Your task to perform on an android device: View the shopping cart on amazon. Add dell xps to the cart on amazon Image 0: 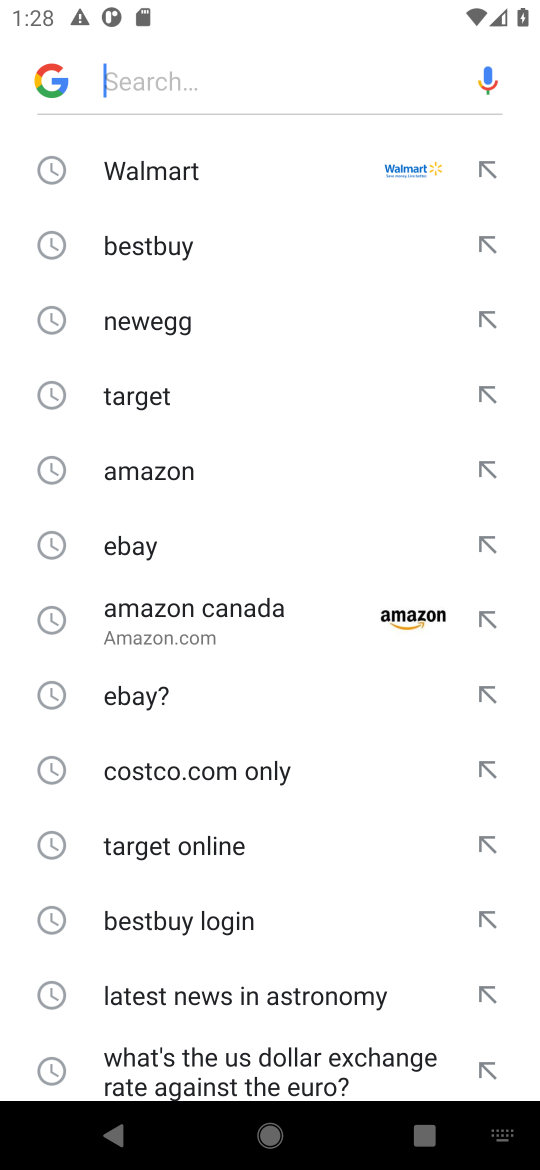
Step 0: press home button
Your task to perform on an android device: View the shopping cart on amazon. Add dell xps to the cart on amazon Image 1: 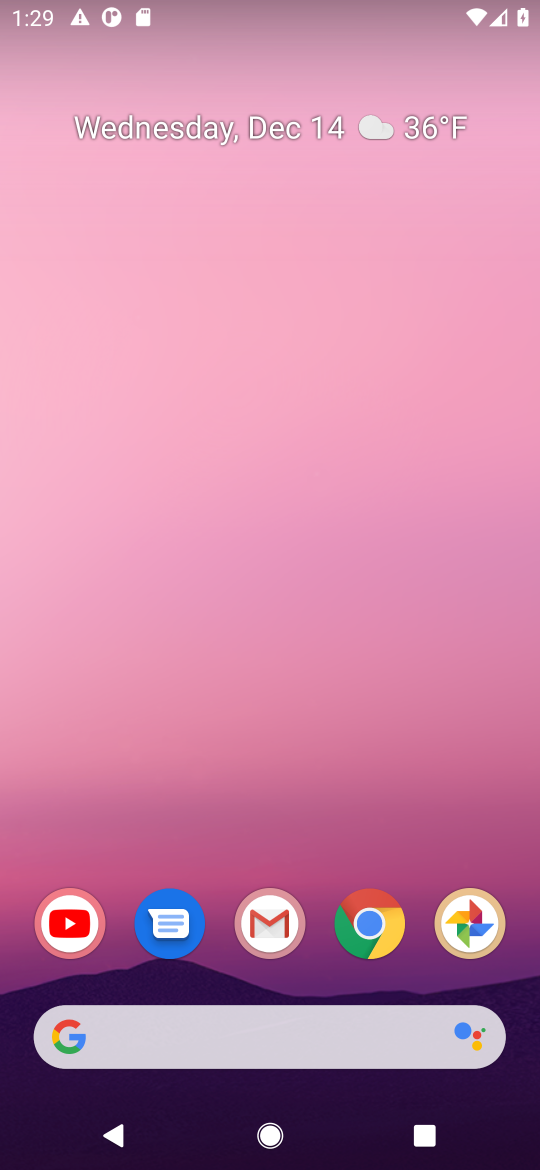
Step 1: click (377, 935)
Your task to perform on an android device: View the shopping cart on amazon. Add dell xps to the cart on amazon Image 2: 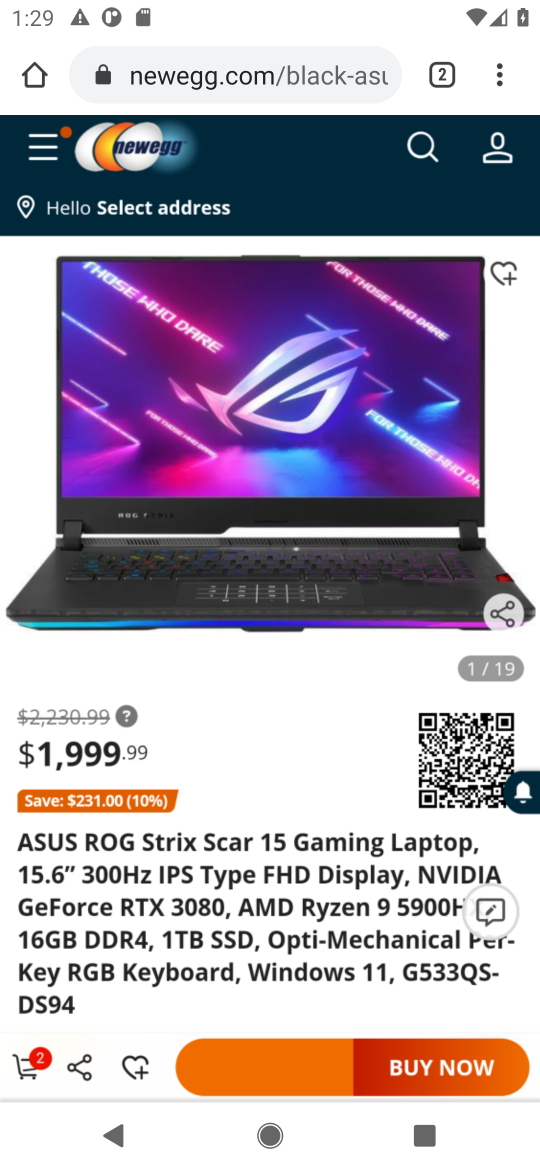
Step 2: click (271, 66)
Your task to perform on an android device: View the shopping cart on amazon. Add dell xps to the cart on amazon Image 3: 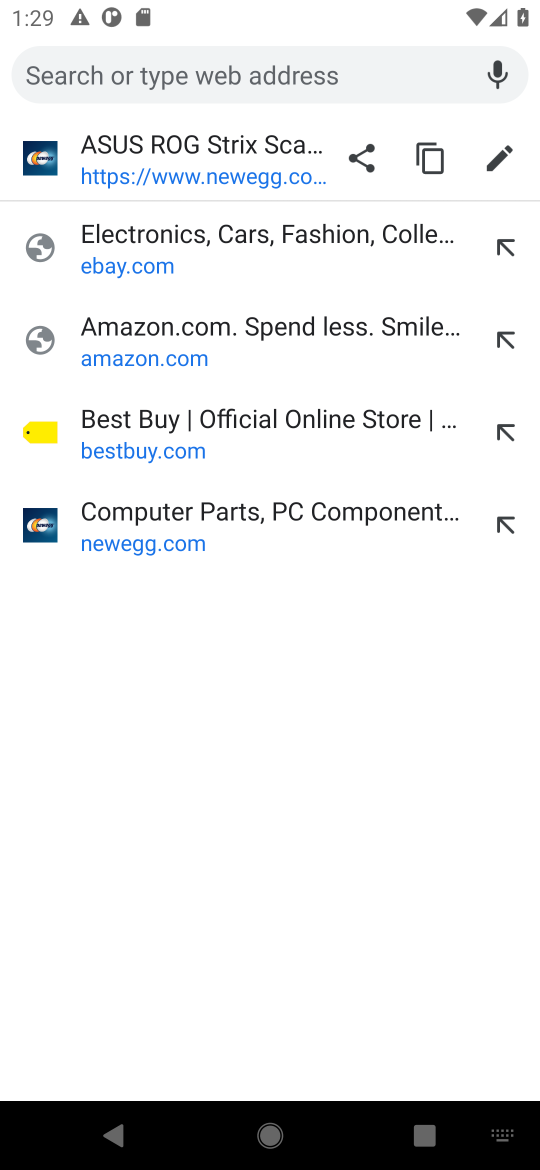
Step 3: click (246, 323)
Your task to perform on an android device: View the shopping cart on amazon. Add dell xps to the cart on amazon Image 4: 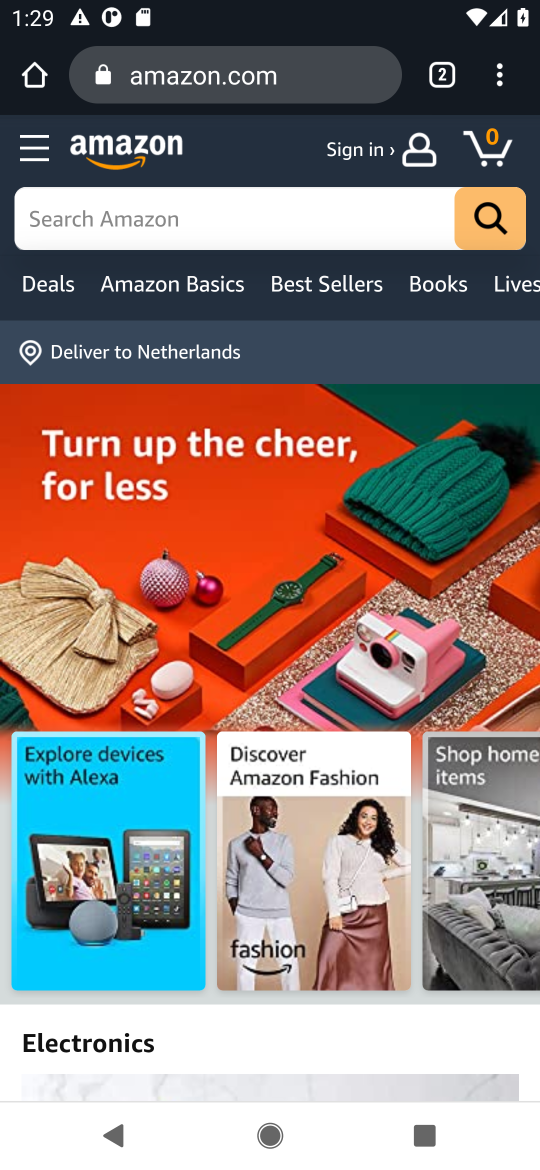
Step 4: click (315, 242)
Your task to perform on an android device: View the shopping cart on amazon. Add dell xps to the cart on amazon Image 5: 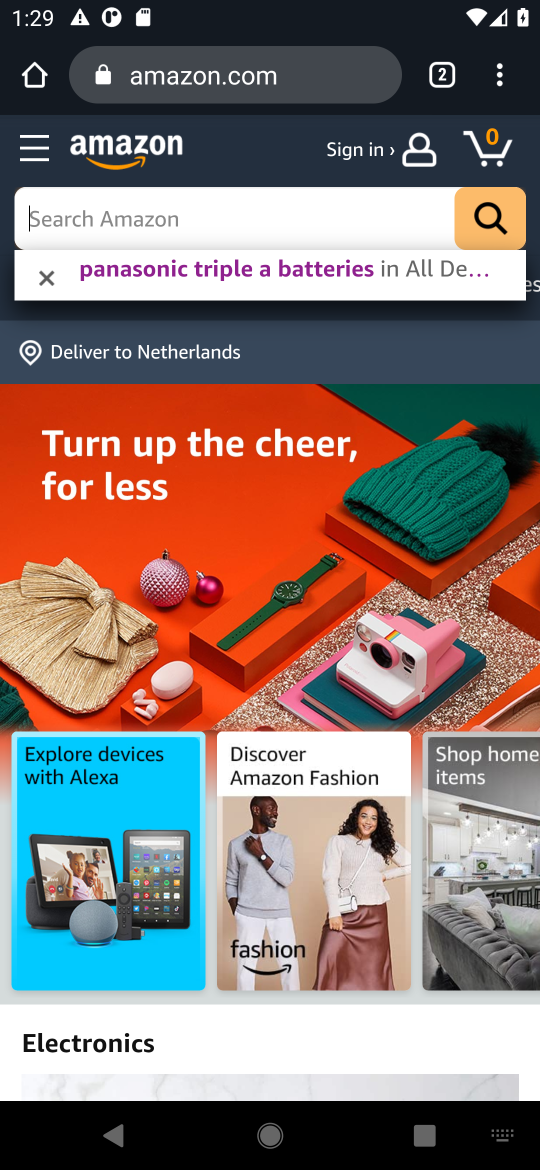
Step 5: type "dell xps"
Your task to perform on an android device: View the shopping cart on amazon. Add dell xps to the cart on amazon Image 6: 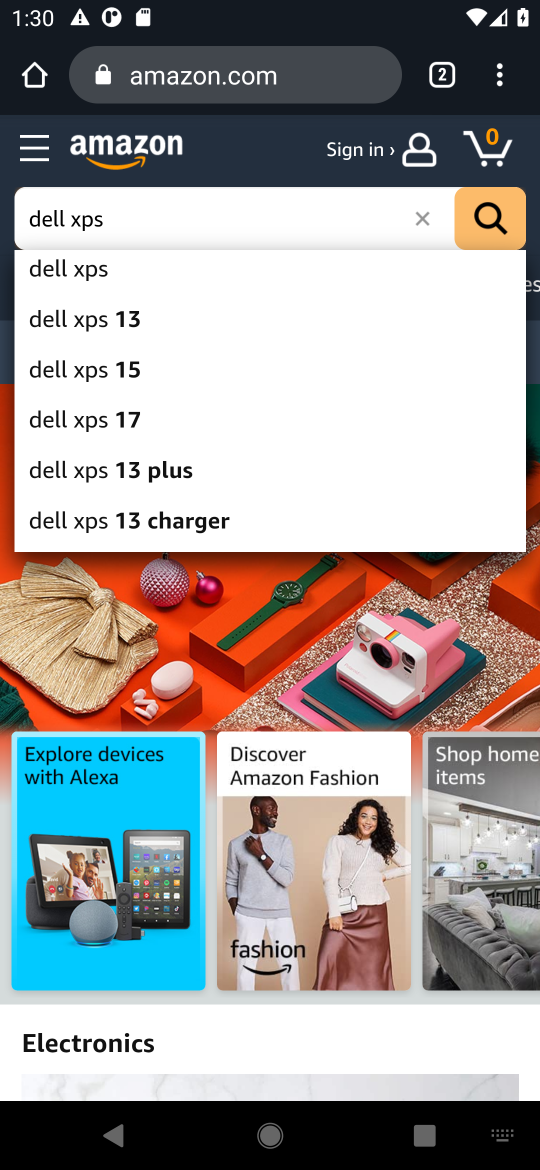
Step 6: click (482, 213)
Your task to perform on an android device: View the shopping cart on amazon. Add dell xps to the cart on amazon Image 7: 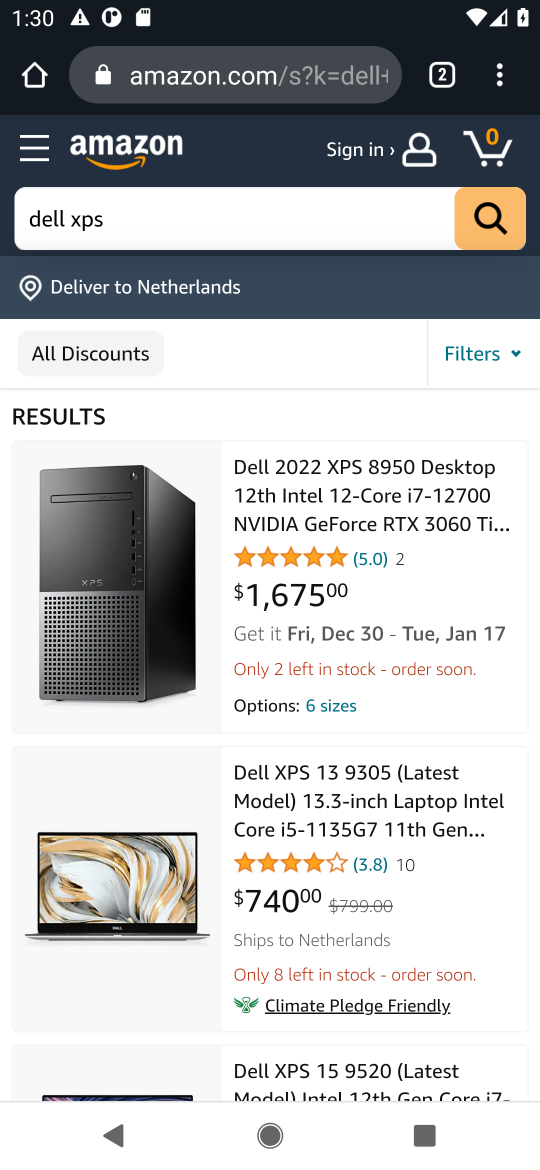
Step 7: click (293, 484)
Your task to perform on an android device: View the shopping cart on amazon. Add dell xps to the cart on amazon Image 8: 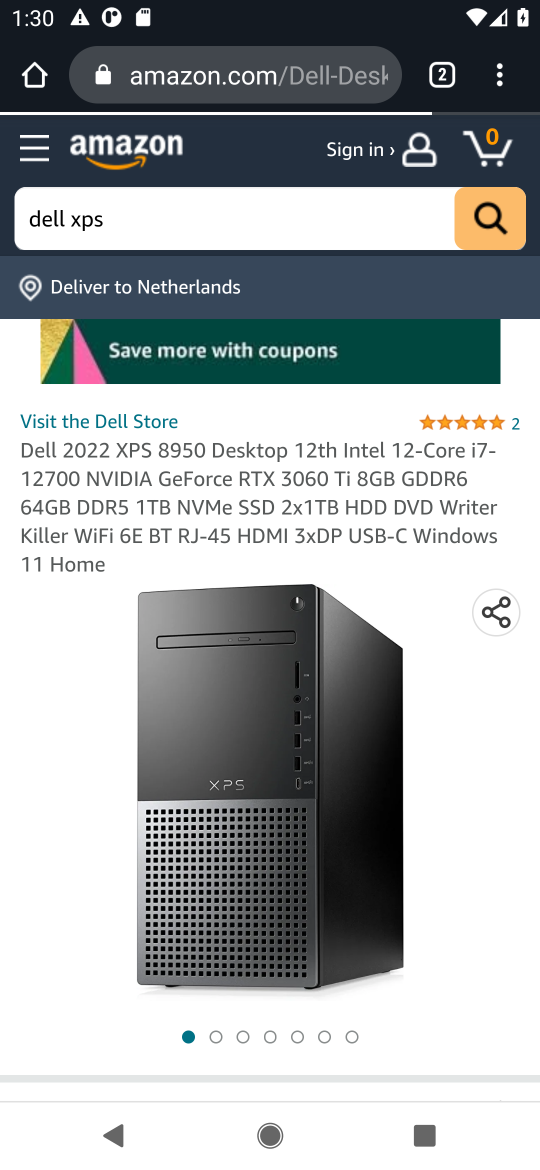
Step 8: drag from (226, 914) to (235, 643)
Your task to perform on an android device: View the shopping cart on amazon. Add dell xps to the cart on amazon Image 9: 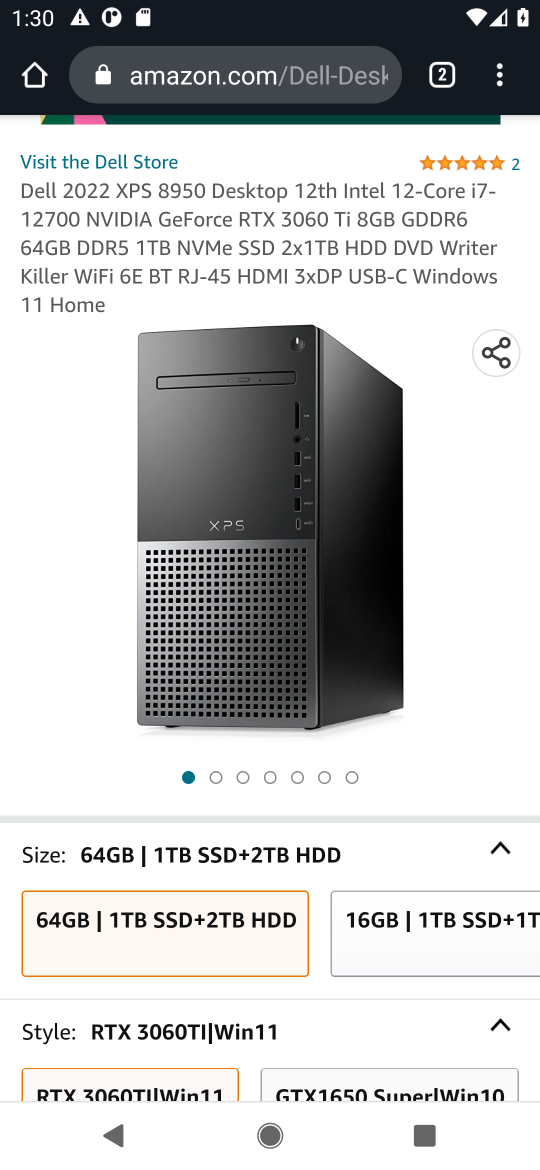
Step 9: drag from (235, 777) to (240, 518)
Your task to perform on an android device: View the shopping cart on amazon. Add dell xps to the cart on amazon Image 10: 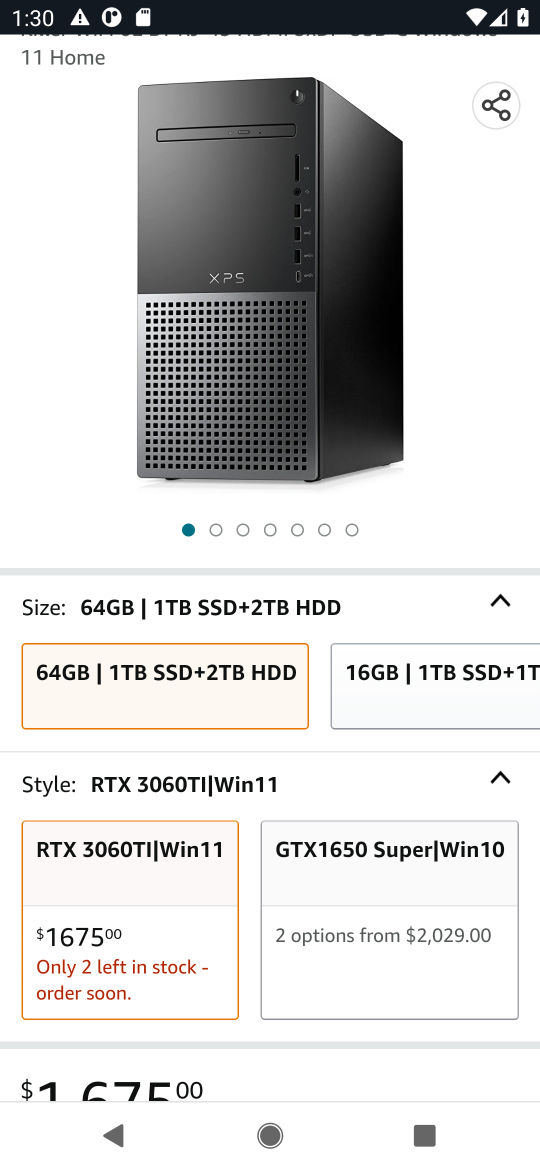
Step 10: drag from (276, 959) to (352, 494)
Your task to perform on an android device: View the shopping cart on amazon. Add dell xps to the cart on amazon Image 11: 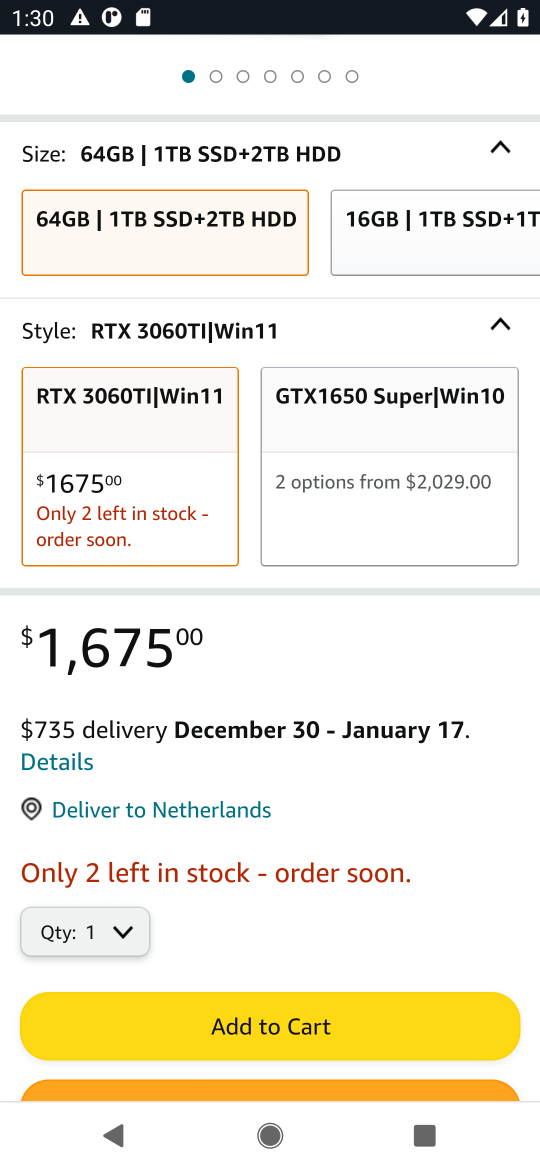
Step 11: click (329, 1028)
Your task to perform on an android device: View the shopping cart on amazon. Add dell xps to the cart on amazon Image 12: 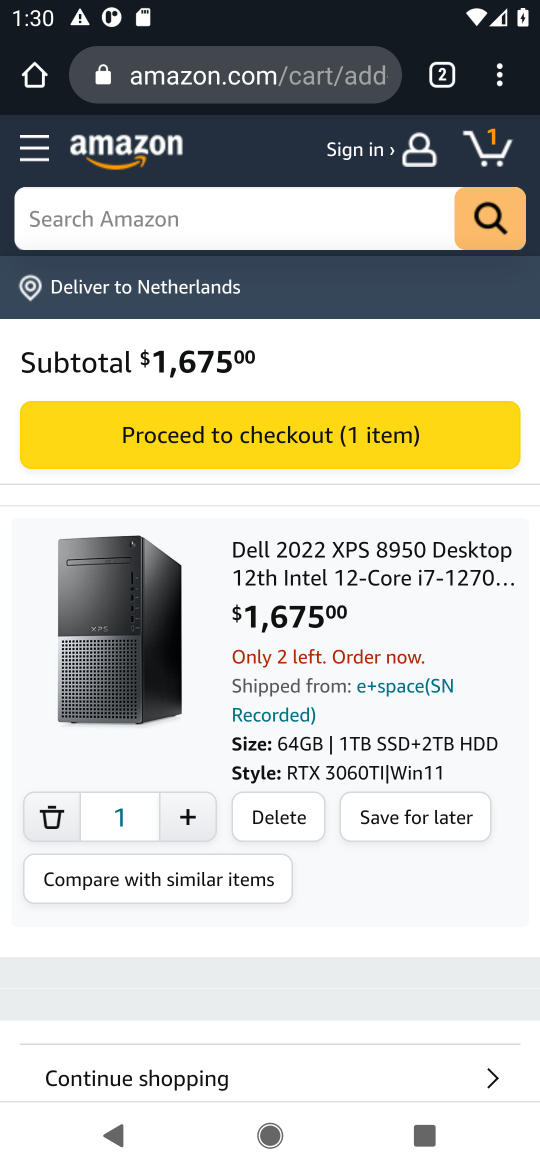
Step 12: task complete